Your task to perform on an android device: find which apps use the phone's location Image 0: 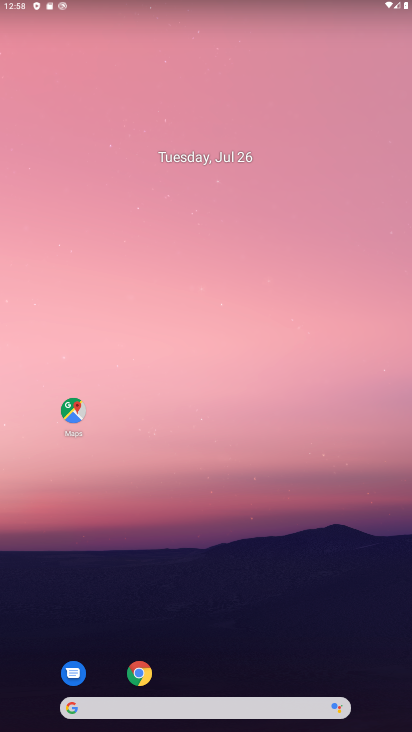
Step 0: press home button
Your task to perform on an android device: find which apps use the phone's location Image 1: 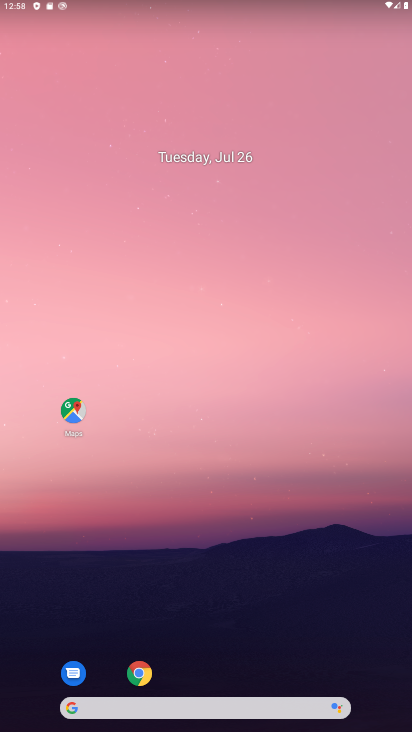
Step 1: drag from (221, 674) to (256, 13)
Your task to perform on an android device: find which apps use the phone's location Image 2: 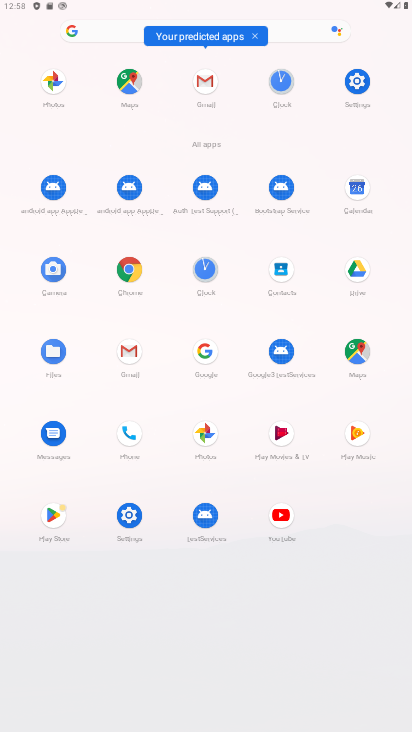
Step 2: click (130, 507)
Your task to perform on an android device: find which apps use the phone's location Image 3: 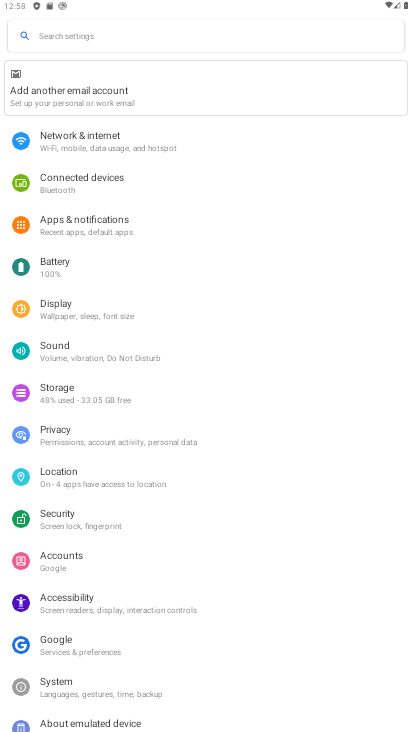
Step 3: click (86, 473)
Your task to perform on an android device: find which apps use the phone's location Image 4: 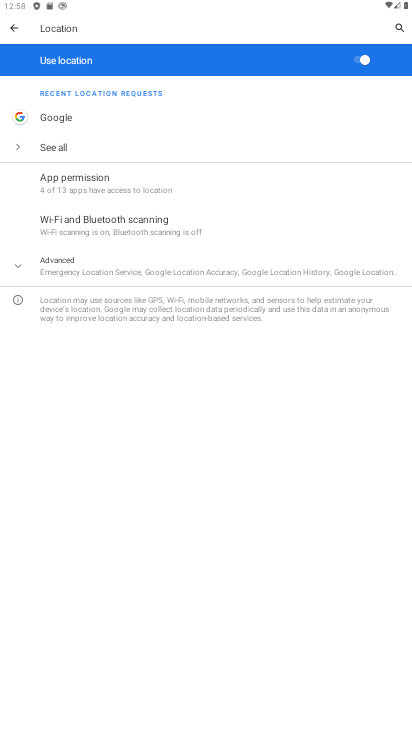
Step 4: click (120, 182)
Your task to perform on an android device: find which apps use the phone's location Image 5: 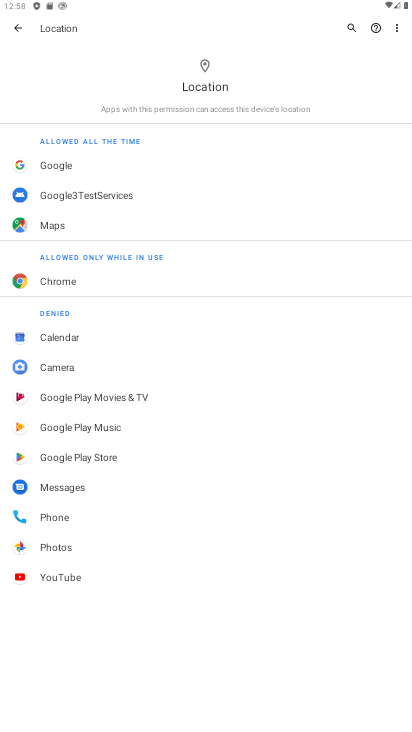
Step 5: task complete